Your task to perform on an android device: Show me popular videos on Youtube Image 0: 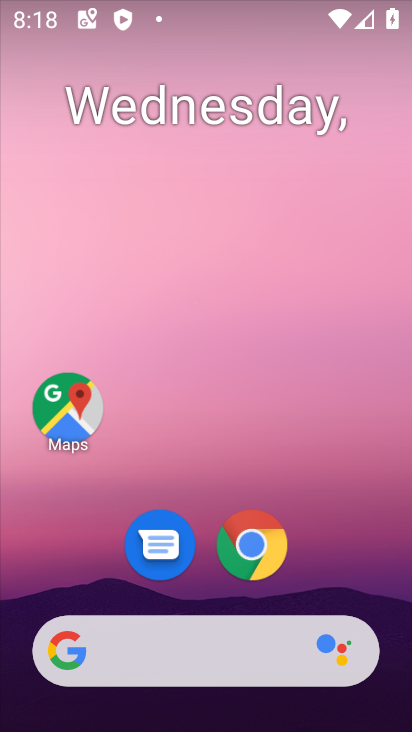
Step 0: drag from (218, 522) to (270, 2)
Your task to perform on an android device: Show me popular videos on Youtube Image 1: 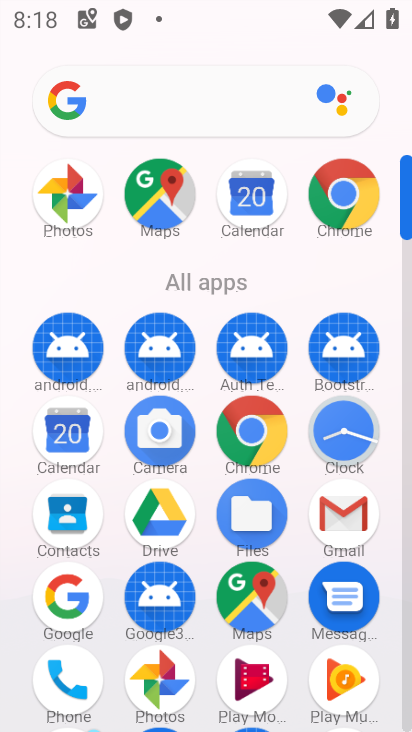
Step 1: drag from (216, 601) to (318, 41)
Your task to perform on an android device: Show me popular videos on Youtube Image 2: 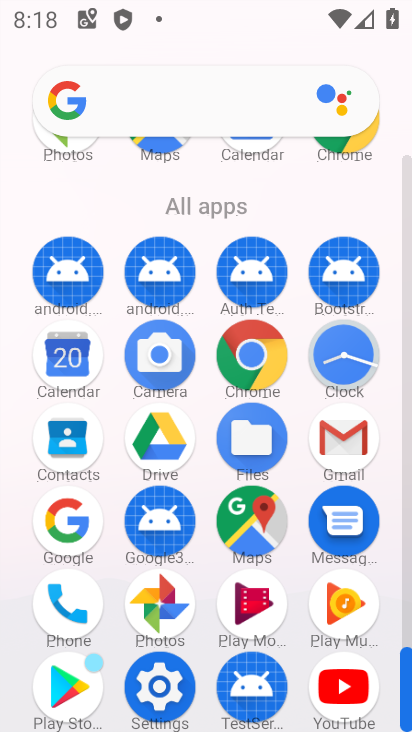
Step 2: click (340, 693)
Your task to perform on an android device: Show me popular videos on Youtube Image 3: 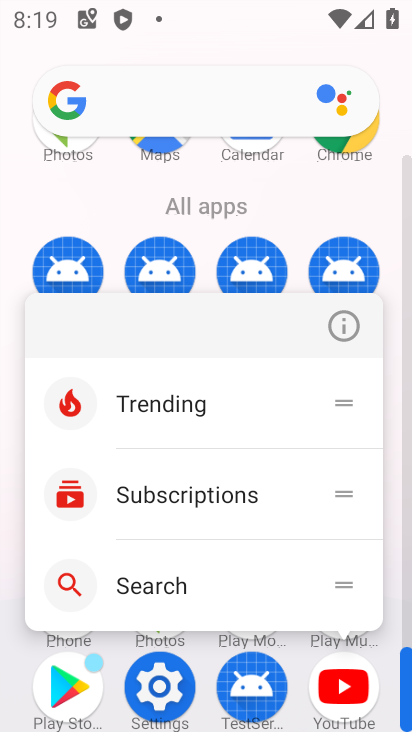
Step 3: click (339, 692)
Your task to perform on an android device: Show me popular videos on Youtube Image 4: 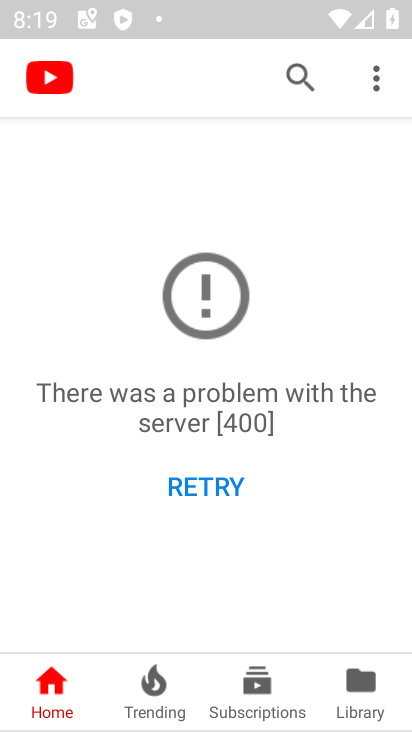
Step 4: click (152, 685)
Your task to perform on an android device: Show me popular videos on Youtube Image 5: 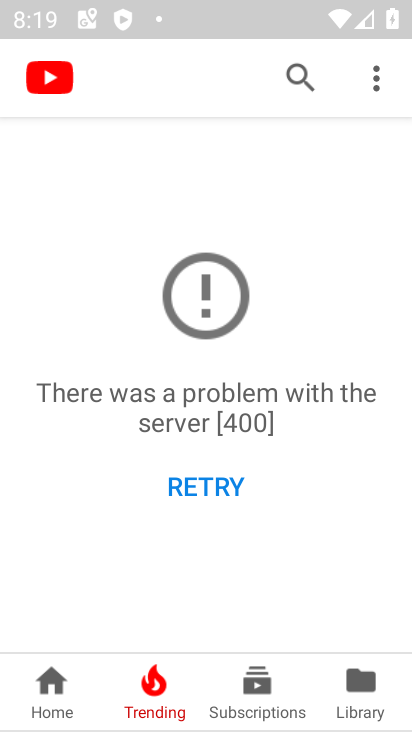
Step 5: task complete